Your task to perform on an android device: find photos in the google photos app Image 0: 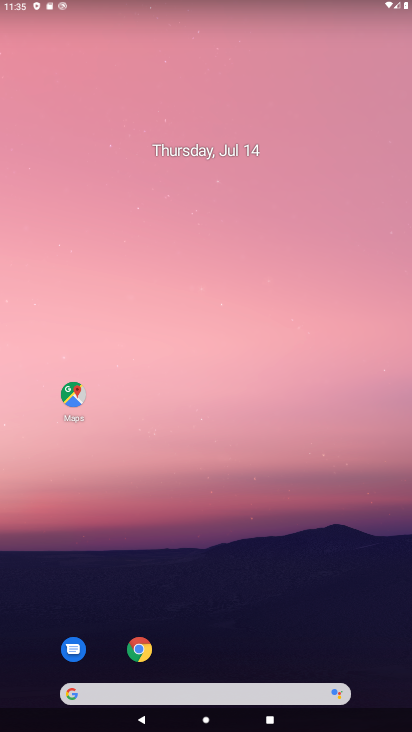
Step 0: drag from (238, 666) to (285, 5)
Your task to perform on an android device: find photos in the google photos app Image 1: 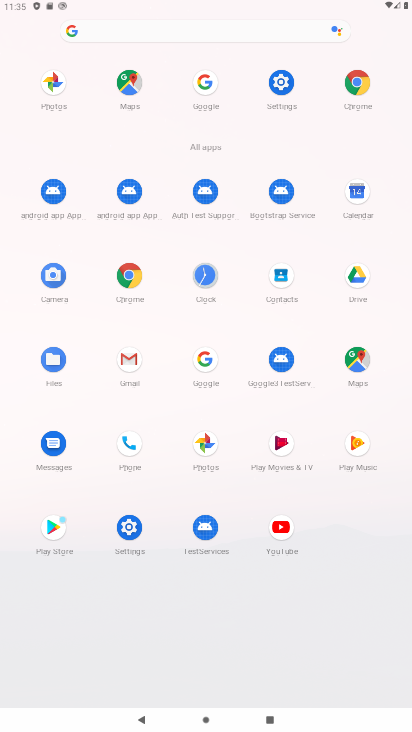
Step 1: click (207, 462)
Your task to perform on an android device: find photos in the google photos app Image 2: 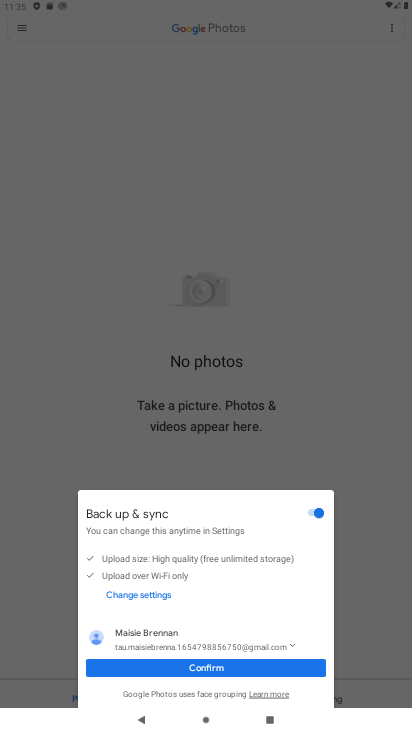
Step 2: click (208, 661)
Your task to perform on an android device: find photos in the google photos app Image 3: 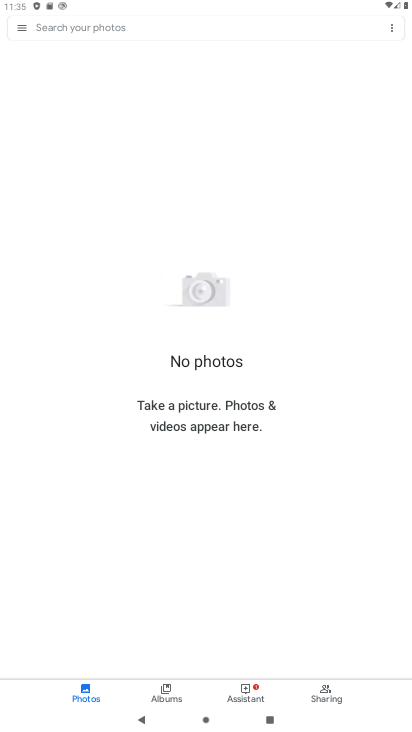
Step 3: task complete